Your task to perform on an android device: allow notifications from all sites in the chrome app Image 0: 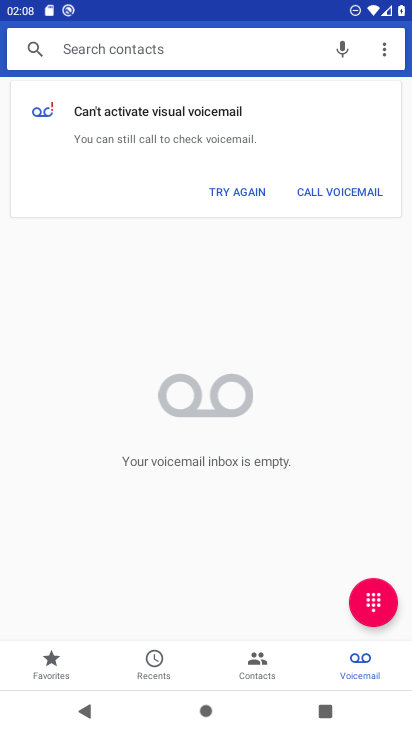
Step 0: press home button
Your task to perform on an android device: allow notifications from all sites in the chrome app Image 1: 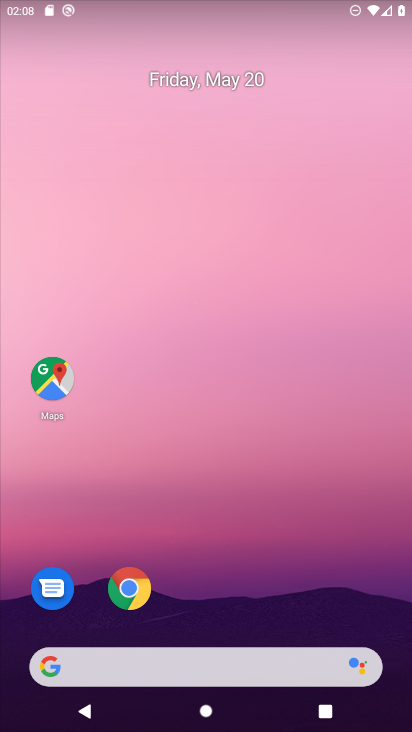
Step 1: click (130, 589)
Your task to perform on an android device: allow notifications from all sites in the chrome app Image 2: 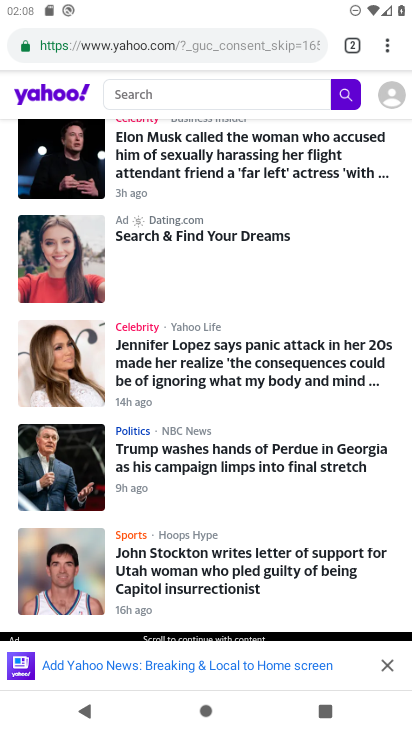
Step 2: click (383, 48)
Your task to perform on an android device: allow notifications from all sites in the chrome app Image 3: 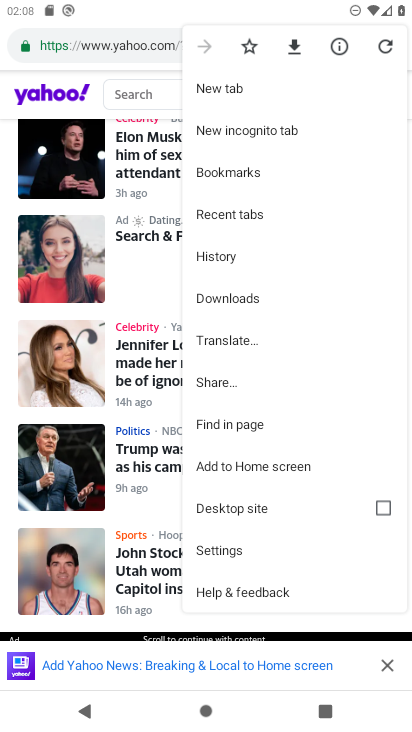
Step 3: click (223, 548)
Your task to perform on an android device: allow notifications from all sites in the chrome app Image 4: 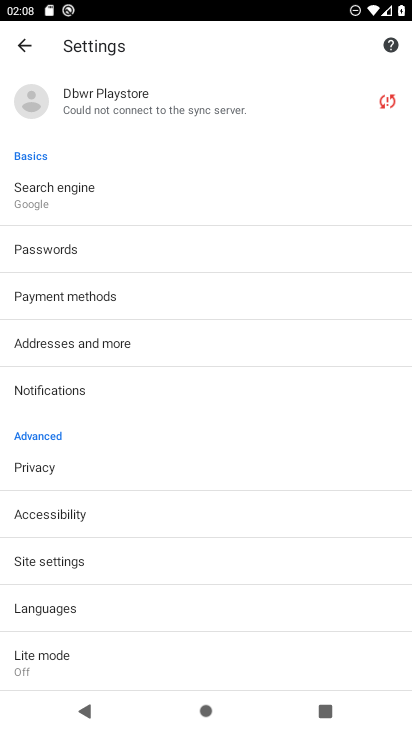
Step 4: drag from (156, 569) to (156, 387)
Your task to perform on an android device: allow notifications from all sites in the chrome app Image 5: 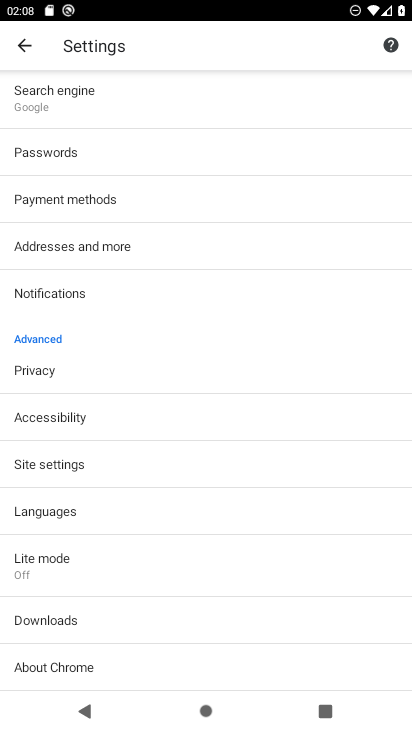
Step 5: click (60, 466)
Your task to perform on an android device: allow notifications from all sites in the chrome app Image 6: 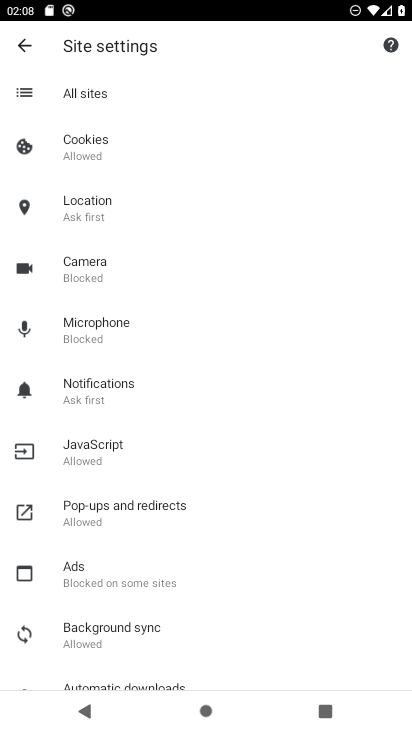
Step 6: click (91, 391)
Your task to perform on an android device: allow notifications from all sites in the chrome app Image 7: 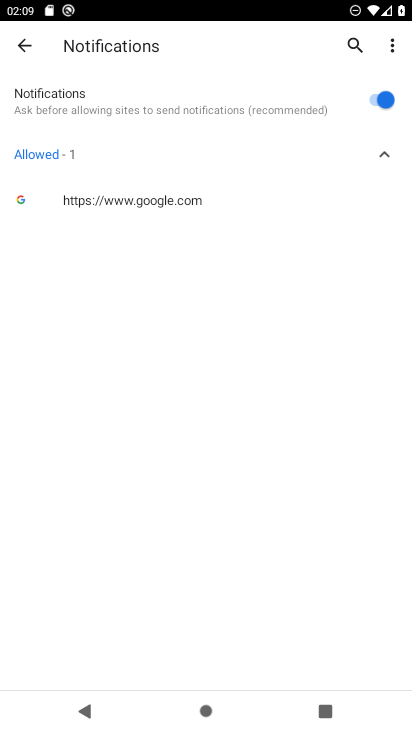
Step 7: task complete